Your task to perform on an android device: toggle priority inbox in the gmail app Image 0: 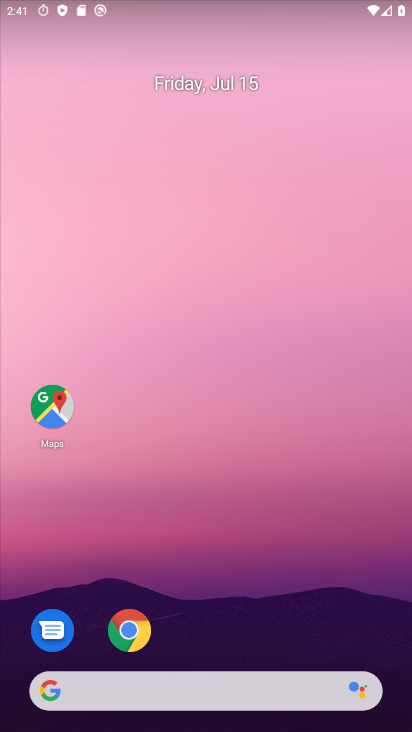
Step 0: drag from (301, 568) to (299, 45)
Your task to perform on an android device: toggle priority inbox in the gmail app Image 1: 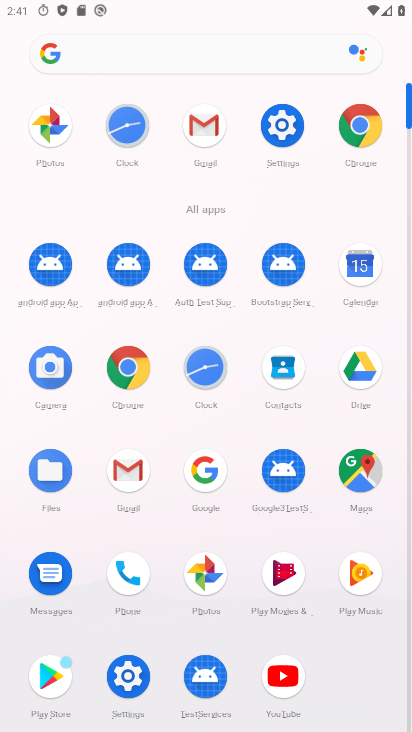
Step 1: click (203, 144)
Your task to perform on an android device: toggle priority inbox in the gmail app Image 2: 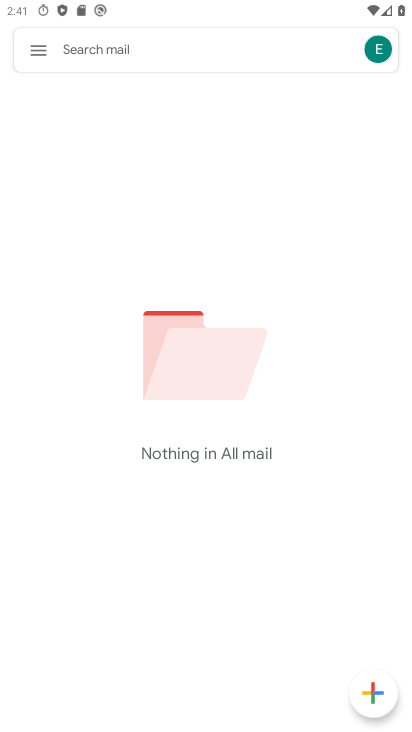
Step 2: click (16, 49)
Your task to perform on an android device: toggle priority inbox in the gmail app Image 3: 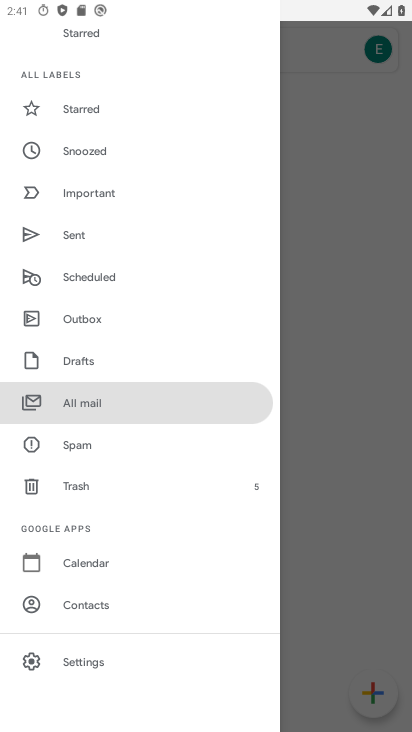
Step 3: click (95, 664)
Your task to perform on an android device: toggle priority inbox in the gmail app Image 4: 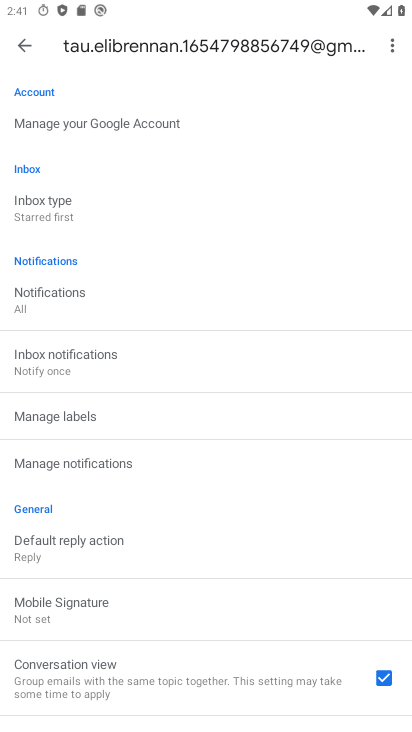
Step 4: click (61, 200)
Your task to perform on an android device: toggle priority inbox in the gmail app Image 5: 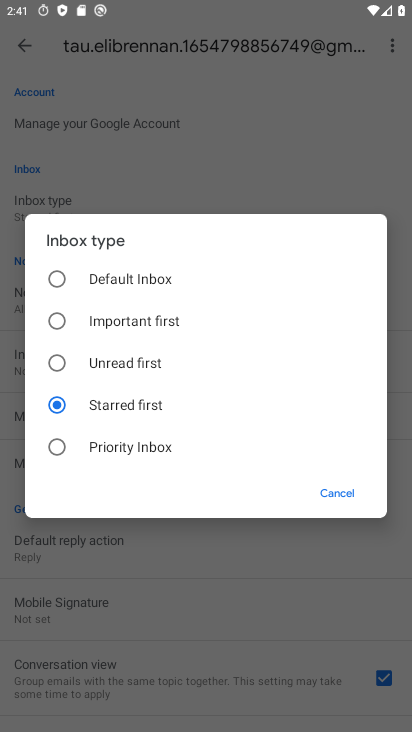
Step 5: click (95, 437)
Your task to perform on an android device: toggle priority inbox in the gmail app Image 6: 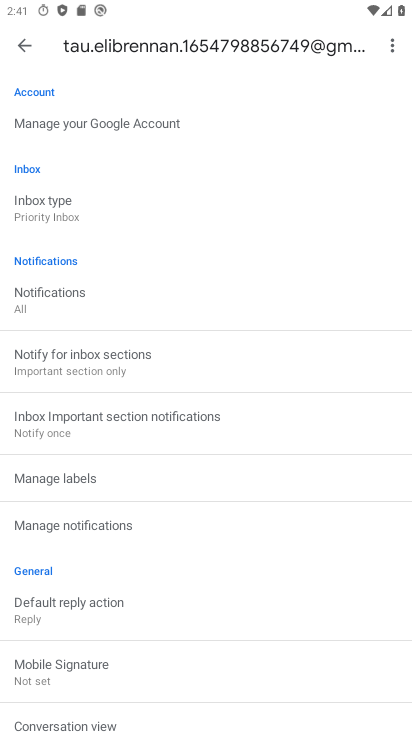
Step 6: task complete